Your task to perform on an android device: uninstall "ColorNote Notepad Notes" Image 0: 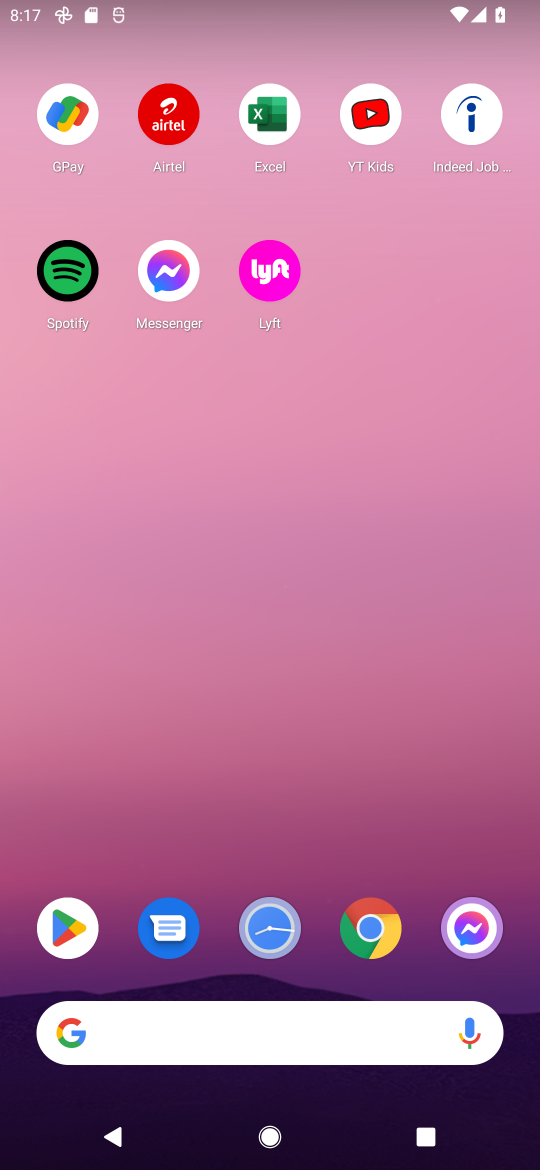
Step 0: click (66, 950)
Your task to perform on an android device: uninstall "ColorNote Notepad Notes" Image 1: 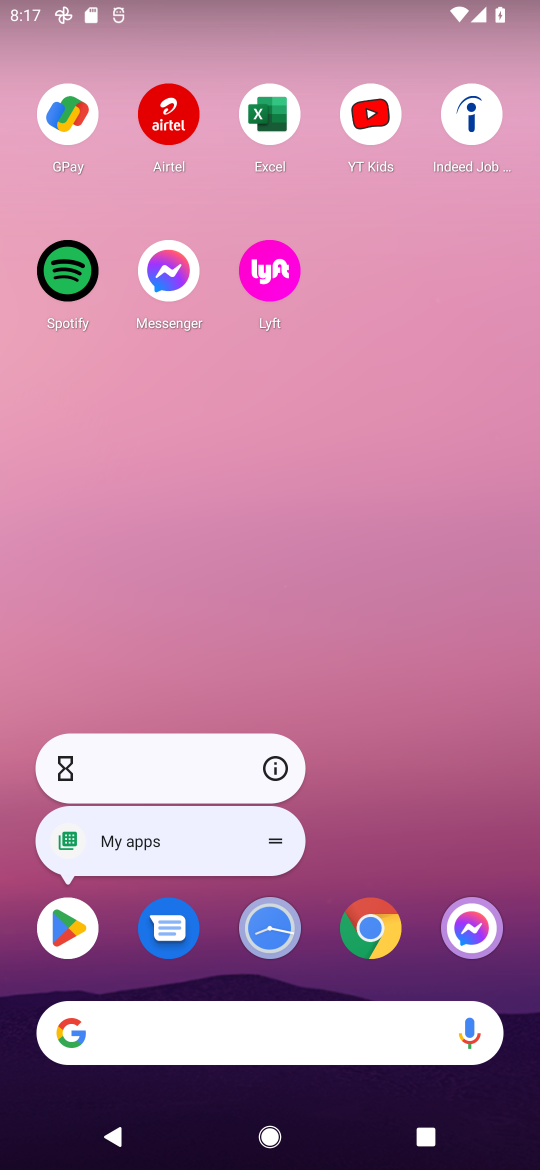
Step 1: click (54, 948)
Your task to perform on an android device: uninstall "ColorNote Notepad Notes" Image 2: 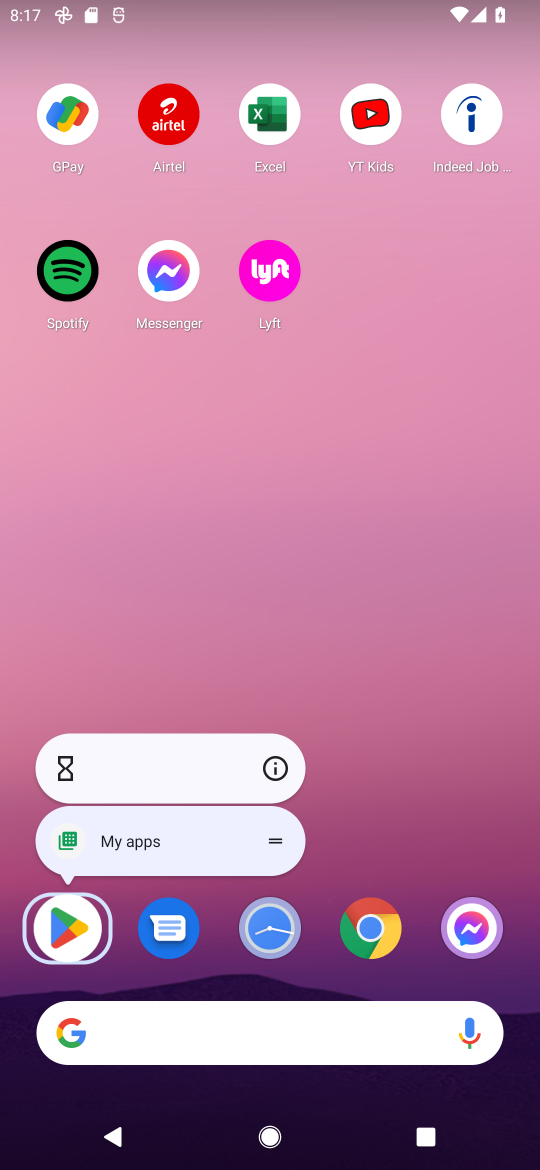
Step 2: click (54, 948)
Your task to perform on an android device: uninstall "ColorNote Notepad Notes" Image 3: 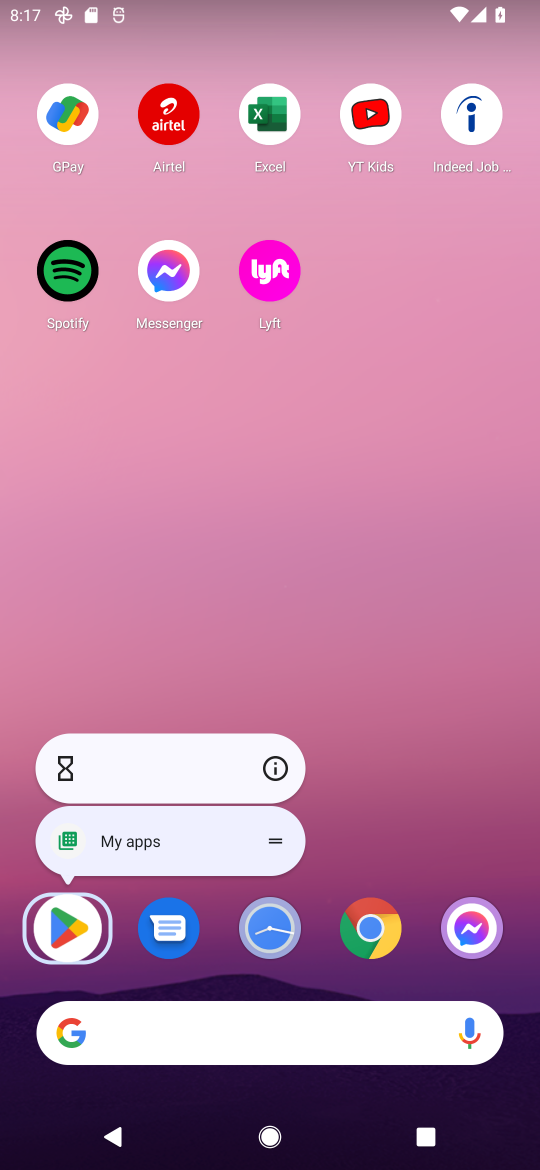
Step 3: click (54, 948)
Your task to perform on an android device: uninstall "ColorNote Notepad Notes" Image 4: 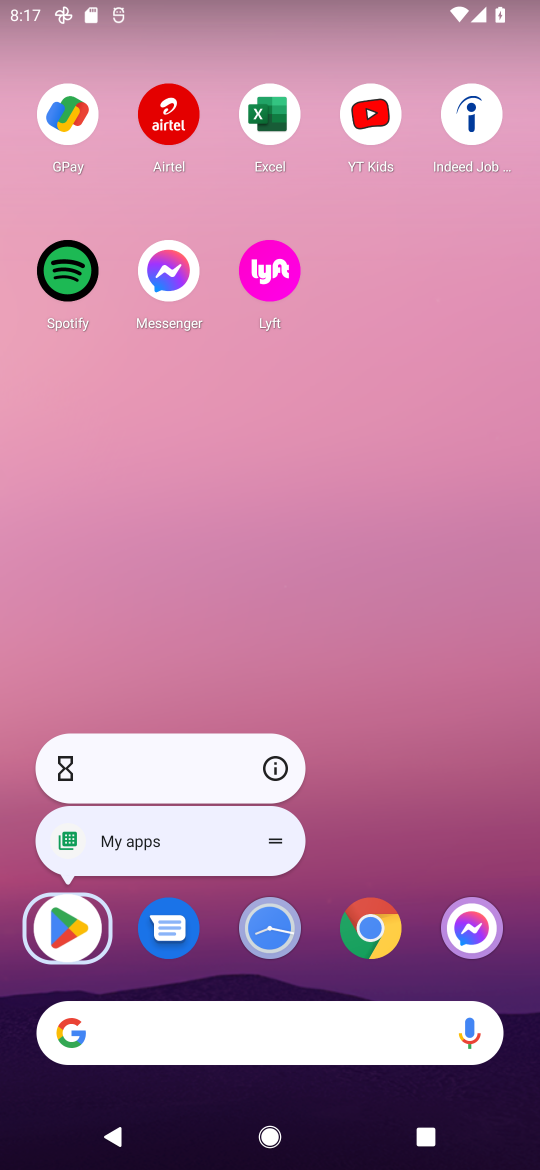
Step 4: click (54, 948)
Your task to perform on an android device: uninstall "ColorNote Notepad Notes" Image 5: 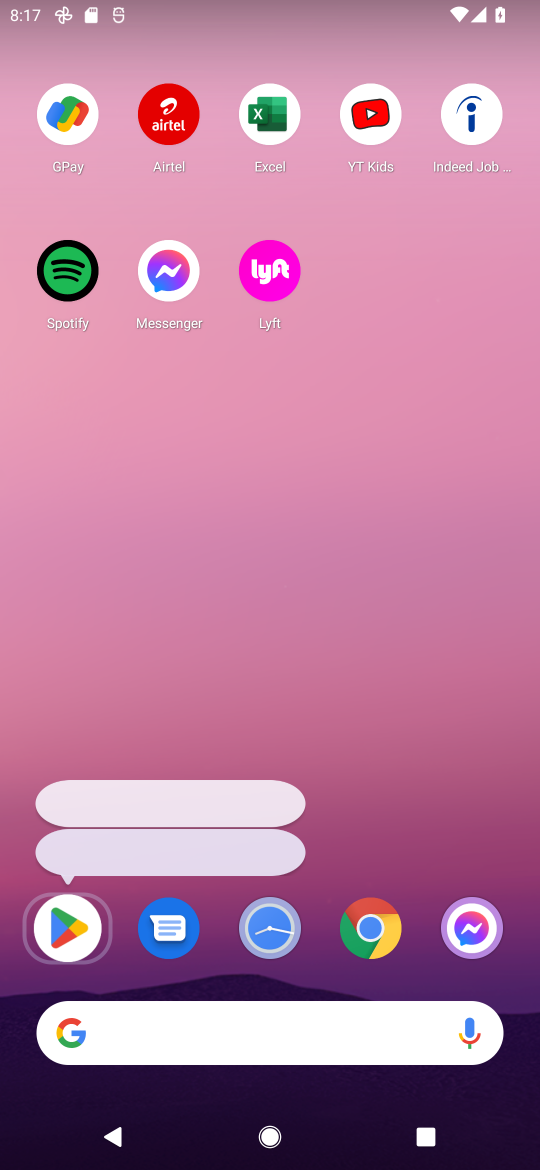
Step 5: click (54, 948)
Your task to perform on an android device: uninstall "ColorNote Notepad Notes" Image 6: 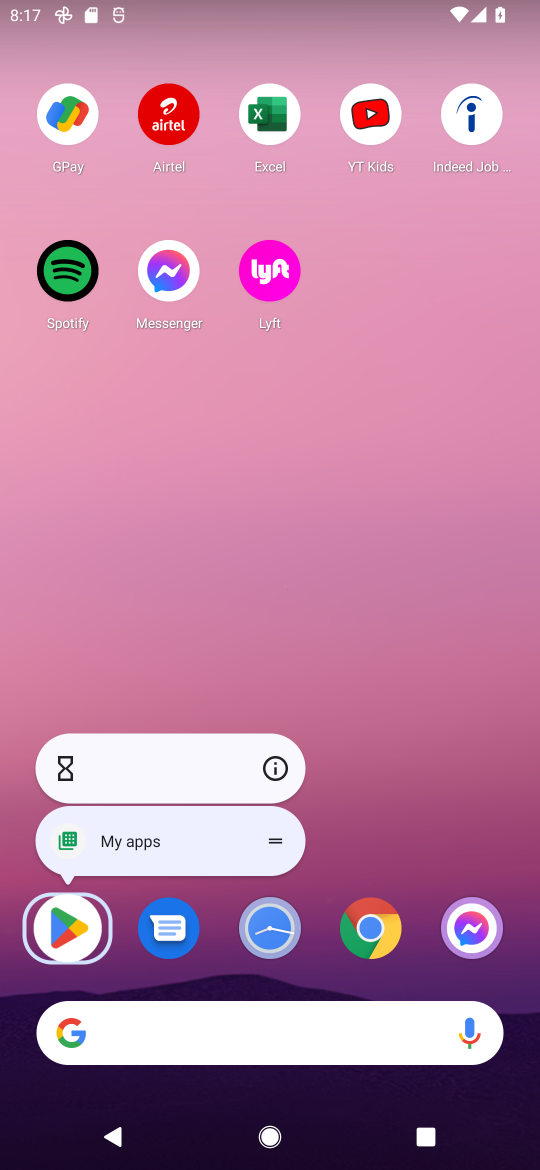
Step 6: click (54, 948)
Your task to perform on an android device: uninstall "ColorNote Notepad Notes" Image 7: 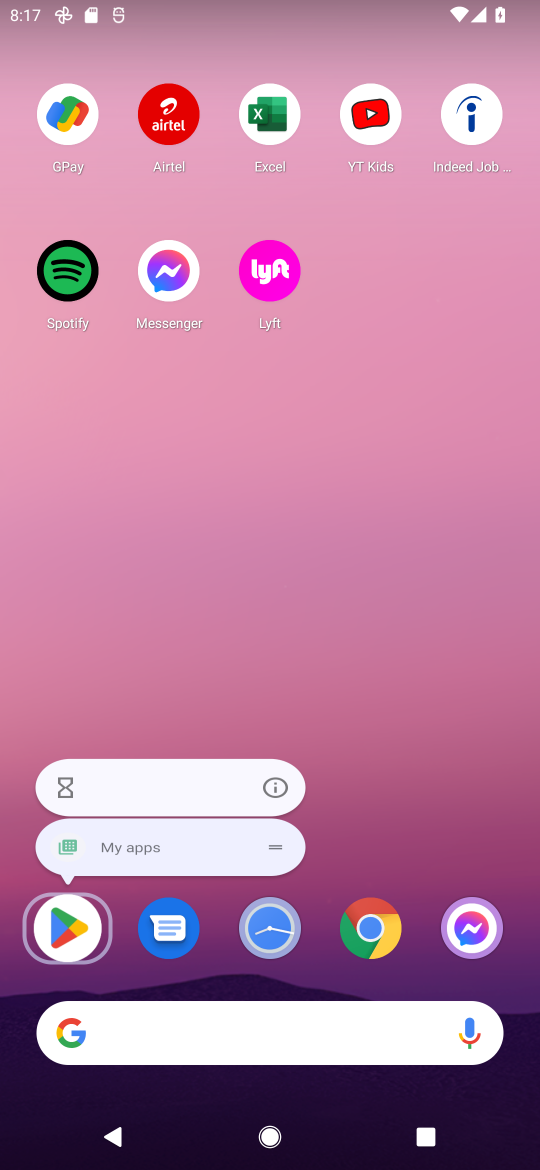
Step 7: click (54, 948)
Your task to perform on an android device: uninstall "ColorNote Notepad Notes" Image 8: 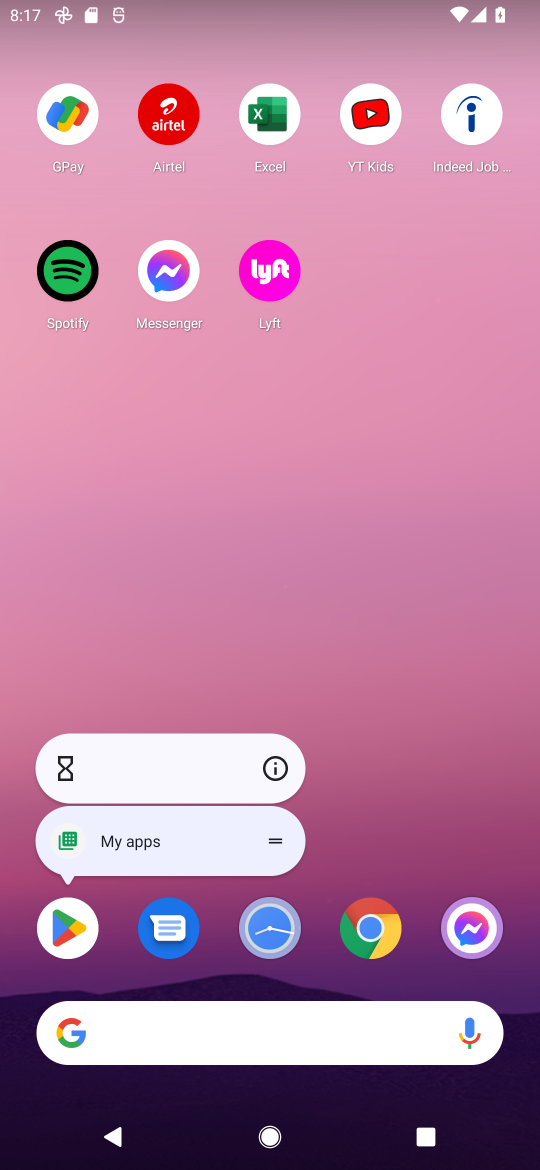
Step 8: click (54, 948)
Your task to perform on an android device: uninstall "ColorNote Notepad Notes" Image 9: 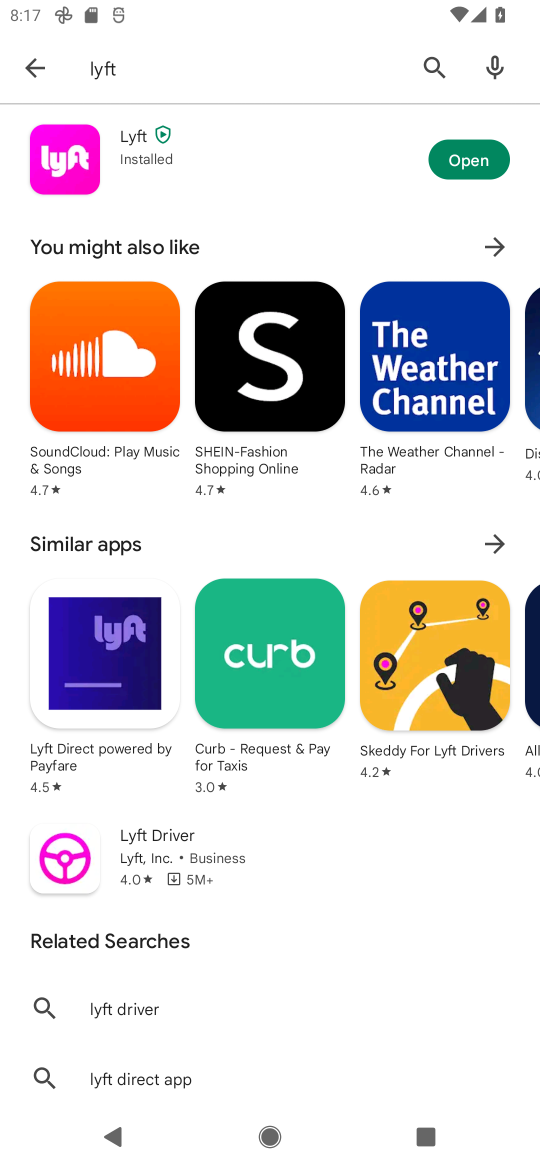
Step 9: click (54, 948)
Your task to perform on an android device: uninstall "ColorNote Notepad Notes" Image 10: 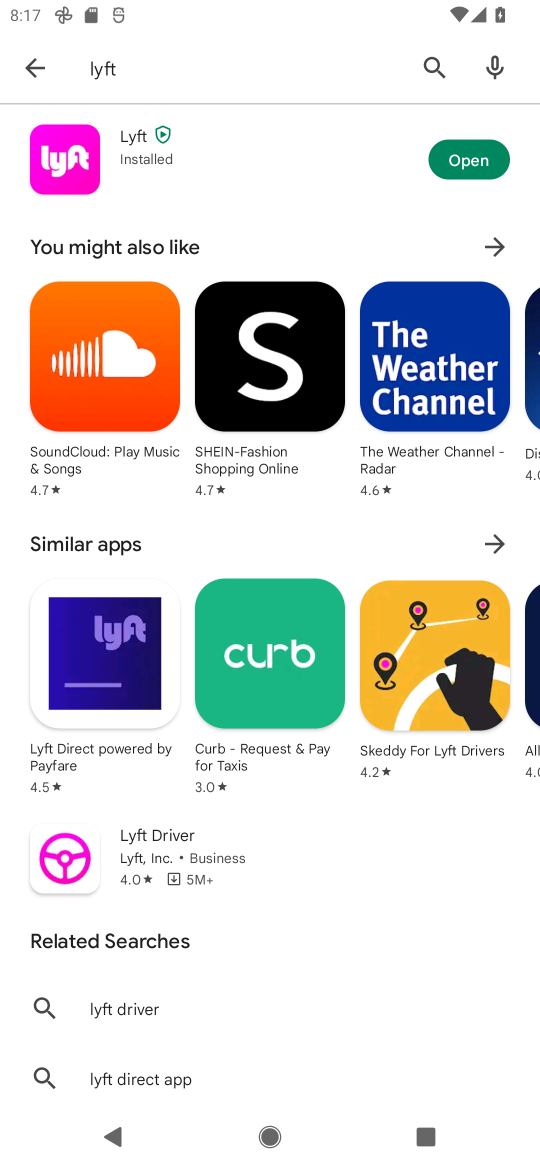
Step 10: click (54, 948)
Your task to perform on an android device: uninstall "ColorNote Notepad Notes" Image 11: 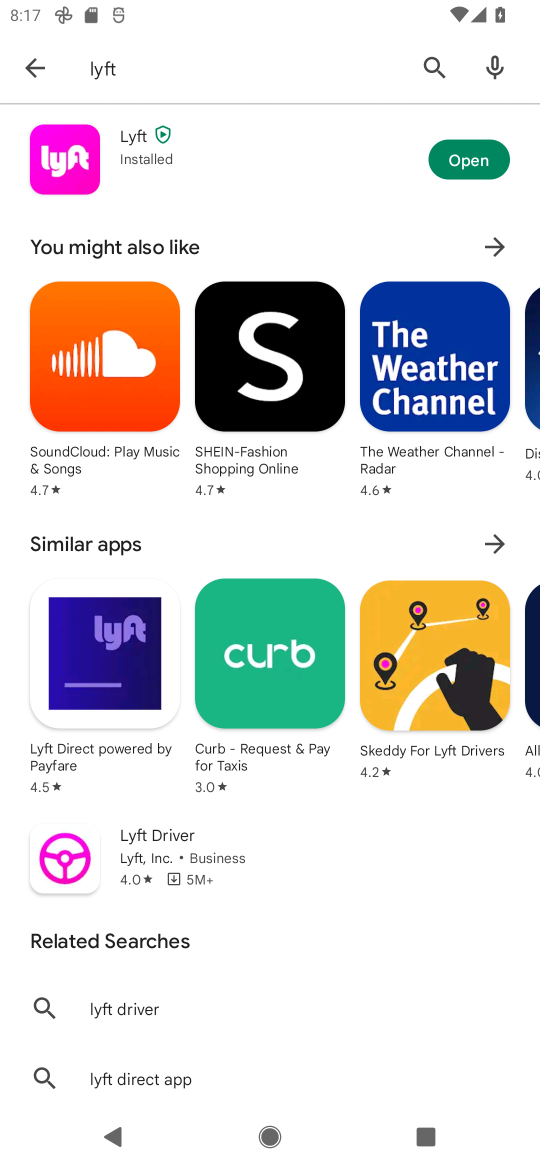
Step 11: click (54, 948)
Your task to perform on an android device: uninstall "ColorNote Notepad Notes" Image 12: 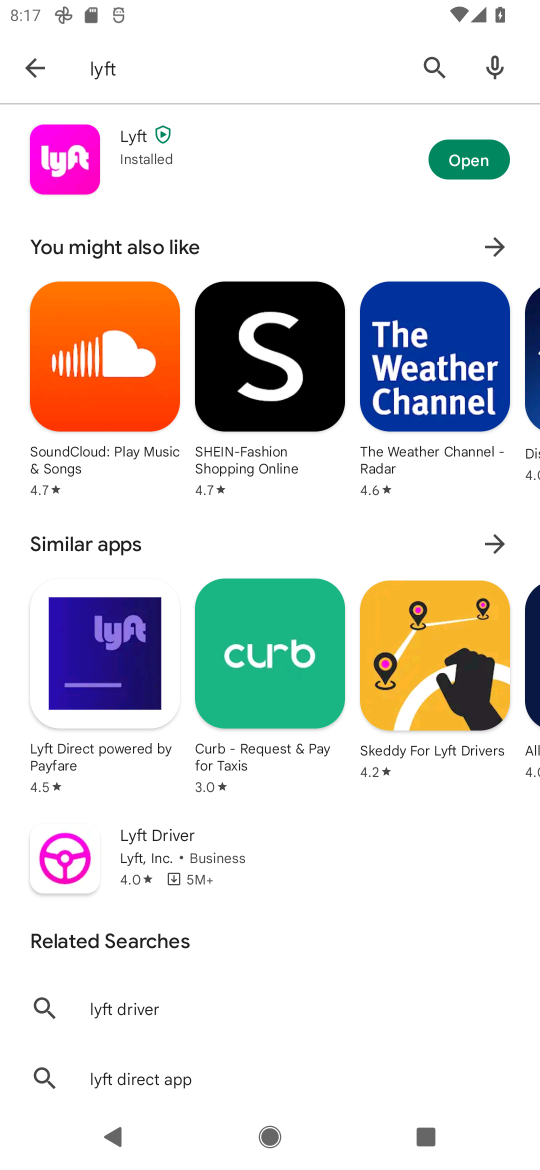
Step 12: click (423, 65)
Your task to perform on an android device: uninstall "ColorNote Notepad Notes" Image 13: 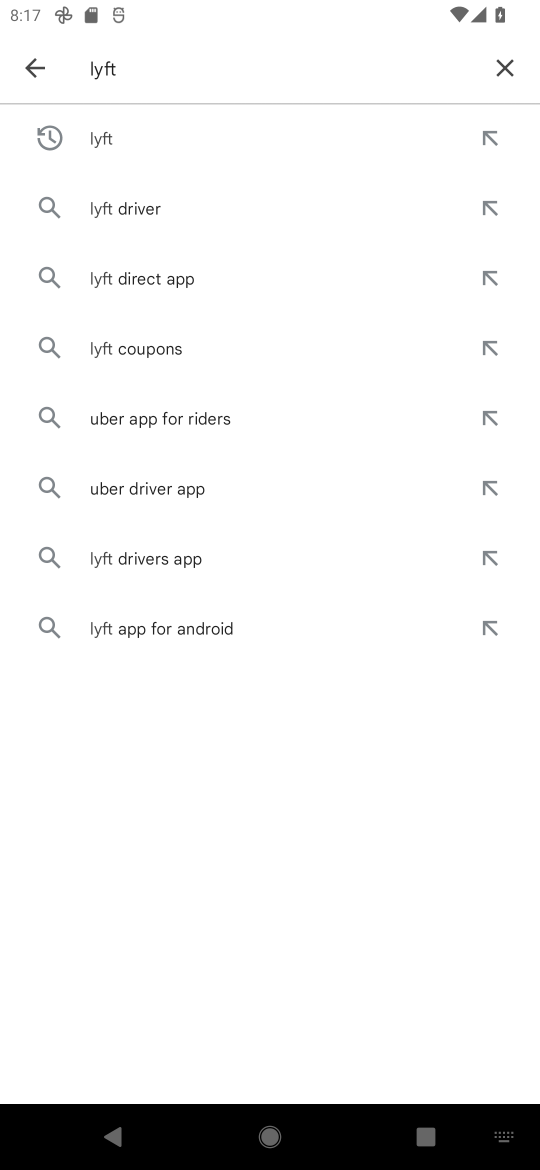
Step 13: click (506, 70)
Your task to perform on an android device: uninstall "ColorNote Notepad Notes" Image 14: 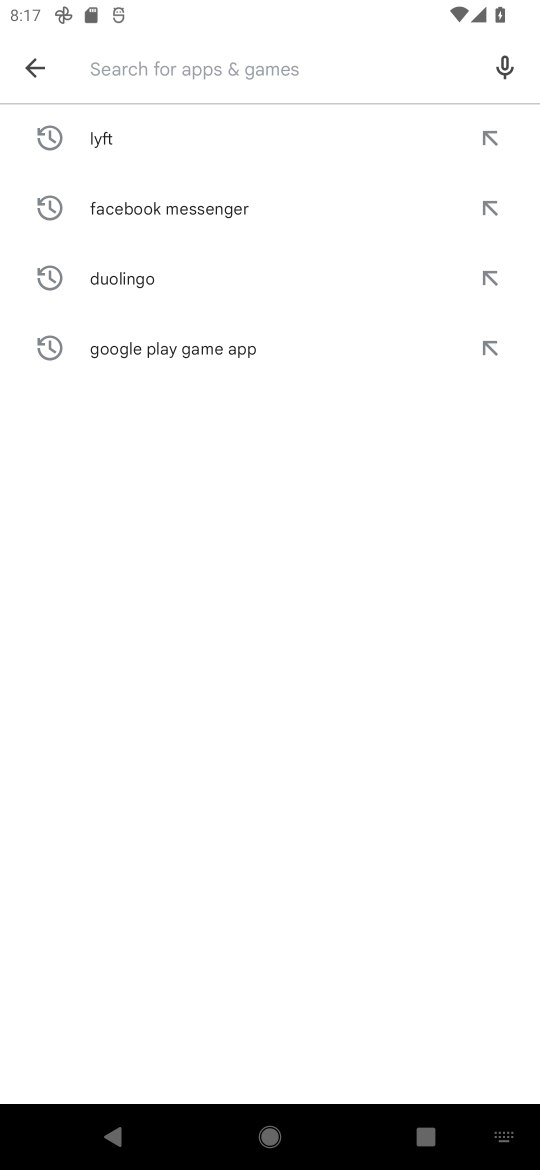
Step 14: type "colornote"
Your task to perform on an android device: uninstall "ColorNote Notepad Notes" Image 15: 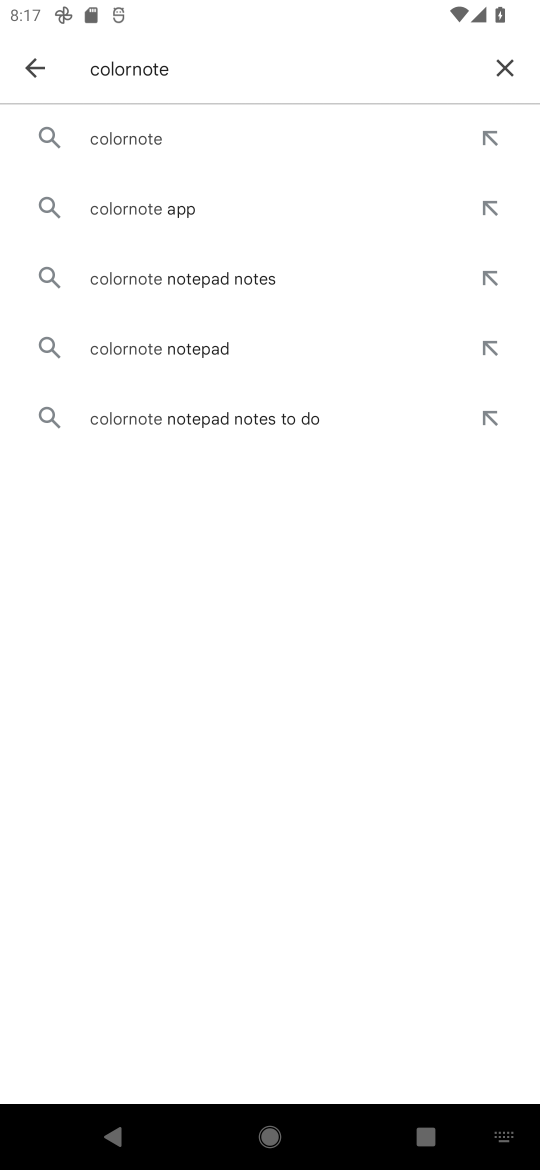
Step 15: click (358, 285)
Your task to perform on an android device: uninstall "ColorNote Notepad Notes" Image 16: 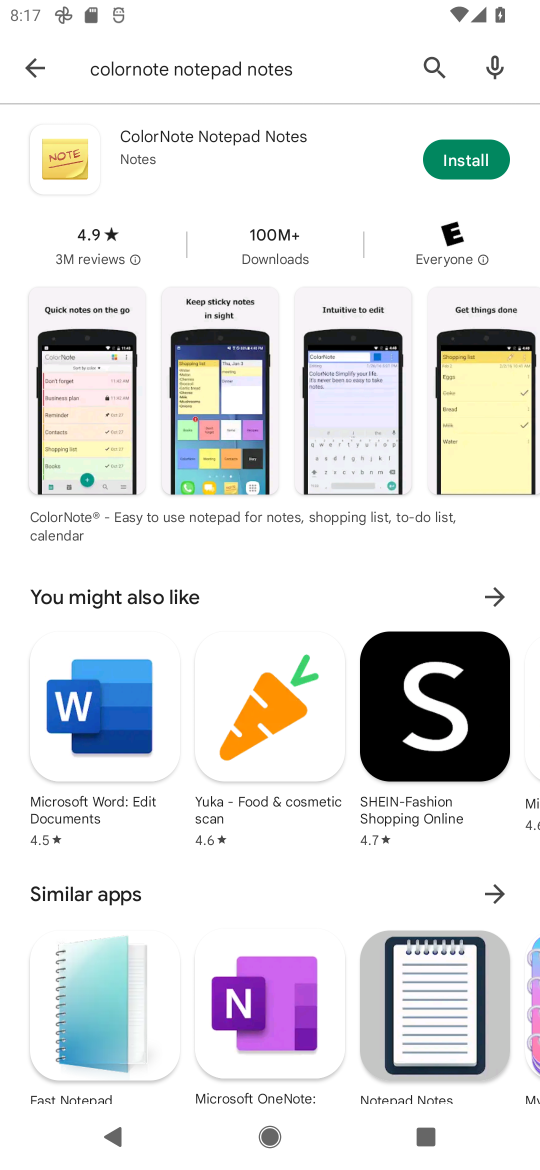
Step 16: task complete